Your task to perform on an android device: turn notification dots off Image 0: 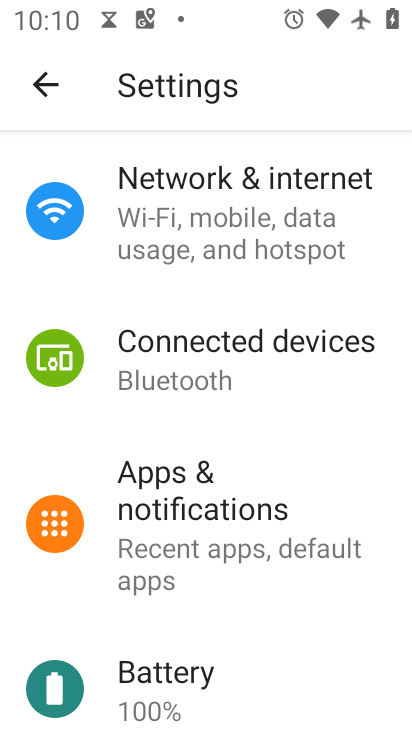
Step 0: press home button
Your task to perform on an android device: turn notification dots off Image 1: 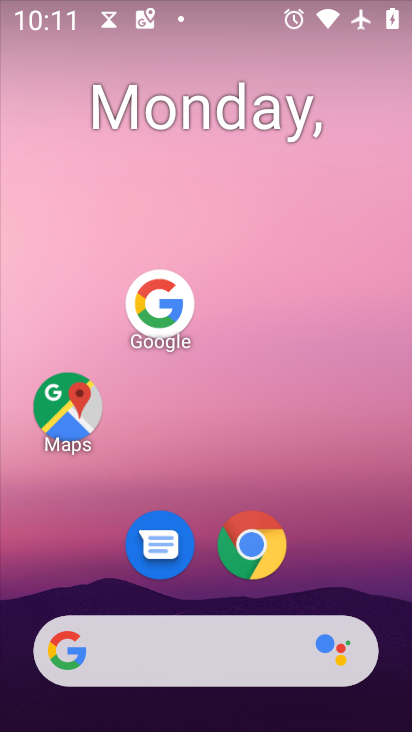
Step 1: drag from (162, 641) to (260, 107)
Your task to perform on an android device: turn notification dots off Image 2: 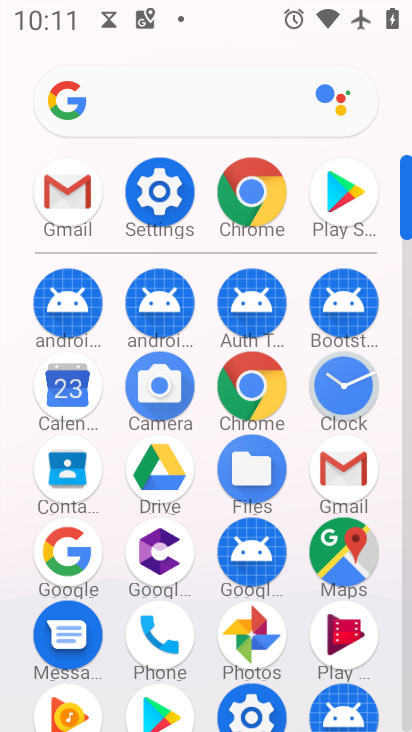
Step 2: click (153, 190)
Your task to perform on an android device: turn notification dots off Image 3: 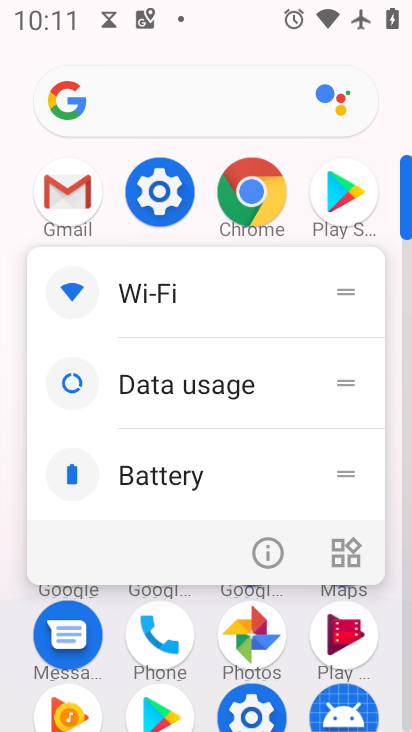
Step 3: click (160, 199)
Your task to perform on an android device: turn notification dots off Image 4: 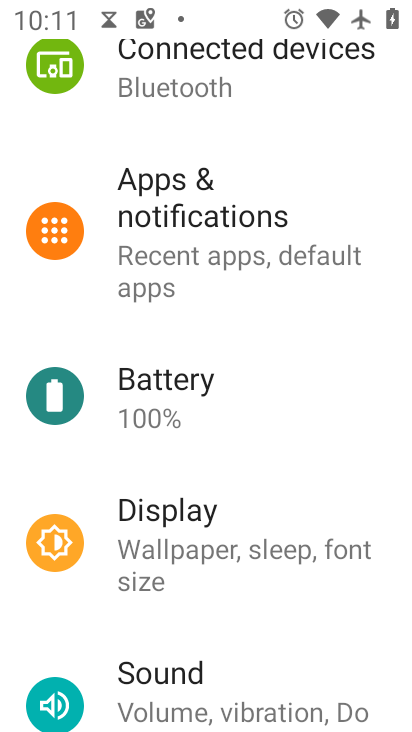
Step 4: click (212, 221)
Your task to perform on an android device: turn notification dots off Image 5: 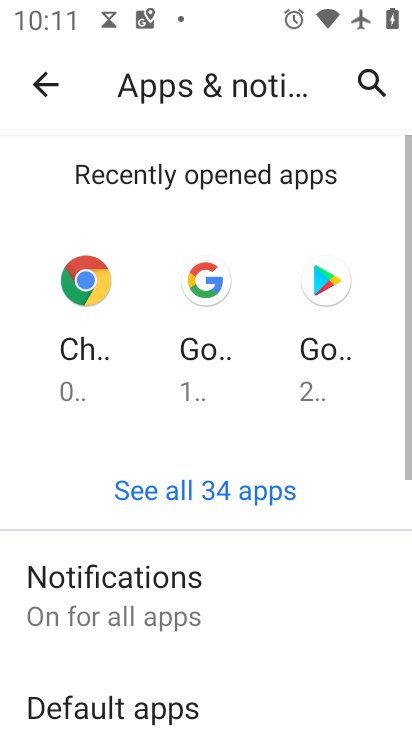
Step 5: click (150, 580)
Your task to perform on an android device: turn notification dots off Image 6: 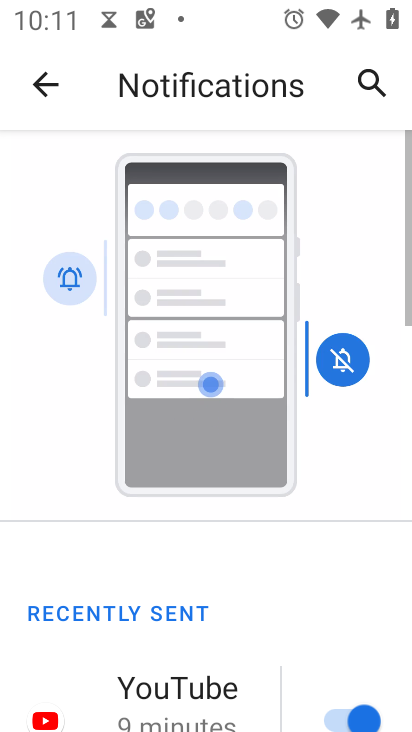
Step 6: drag from (253, 620) to (329, 83)
Your task to perform on an android device: turn notification dots off Image 7: 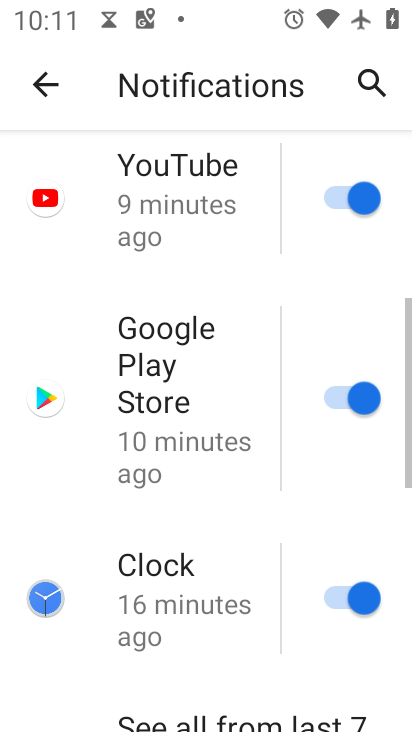
Step 7: drag from (199, 660) to (249, 144)
Your task to perform on an android device: turn notification dots off Image 8: 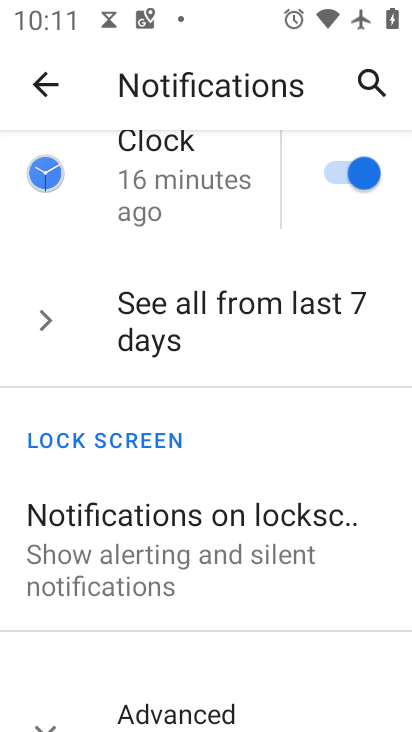
Step 8: drag from (233, 521) to (259, 87)
Your task to perform on an android device: turn notification dots off Image 9: 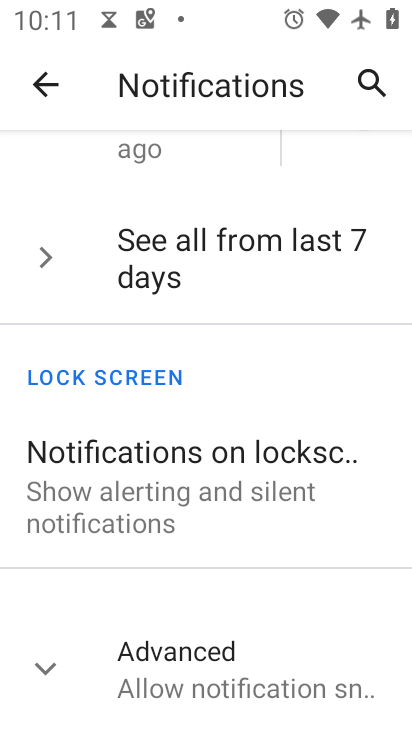
Step 9: click (178, 644)
Your task to perform on an android device: turn notification dots off Image 10: 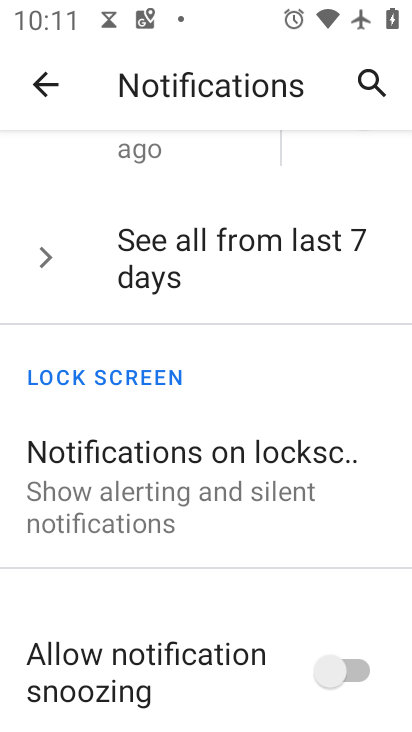
Step 10: drag from (176, 638) to (211, 133)
Your task to perform on an android device: turn notification dots off Image 11: 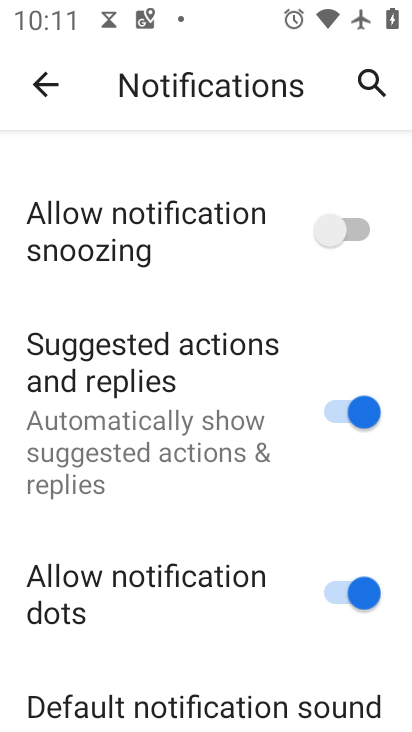
Step 11: click (337, 594)
Your task to perform on an android device: turn notification dots off Image 12: 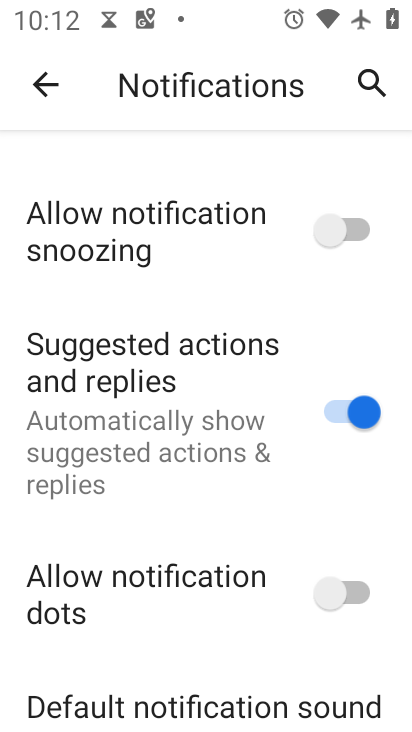
Step 12: task complete